Your task to perform on an android device: change timer sound Image 0: 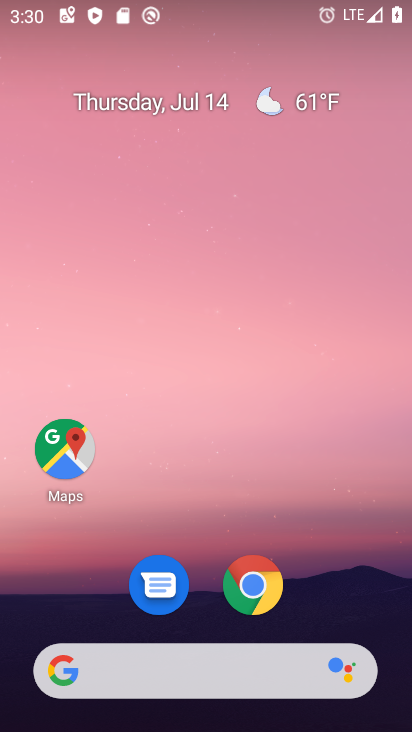
Step 0: drag from (332, 532) to (344, 76)
Your task to perform on an android device: change timer sound Image 1: 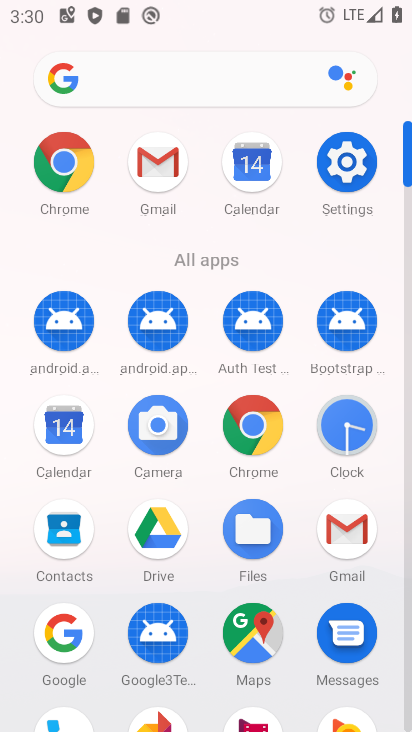
Step 1: click (345, 423)
Your task to perform on an android device: change timer sound Image 2: 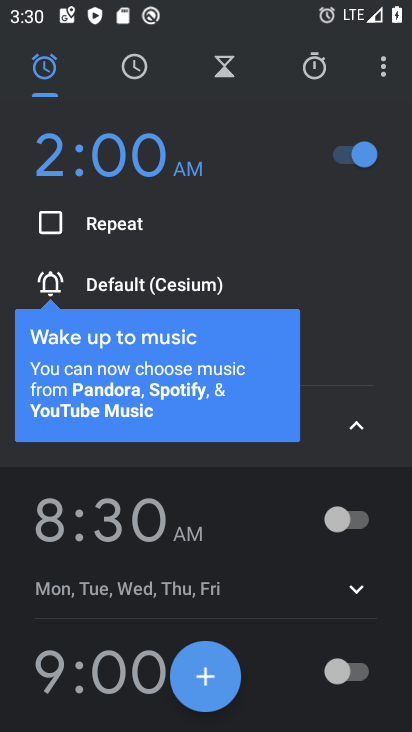
Step 2: click (387, 74)
Your task to perform on an android device: change timer sound Image 3: 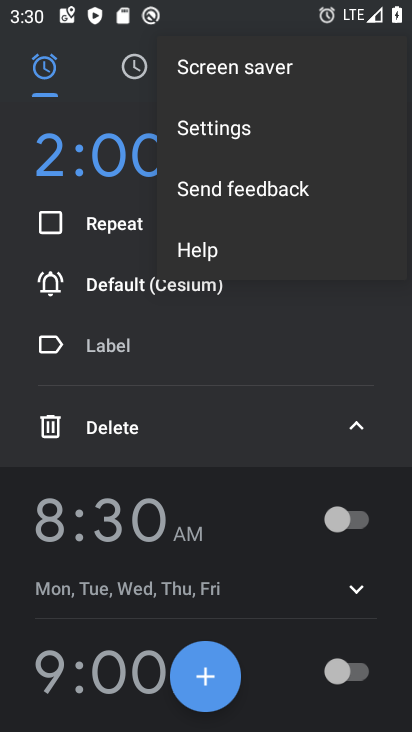
Step 3: click (261, 127)
Your task to perform on an android device: change timer sound Image 4: 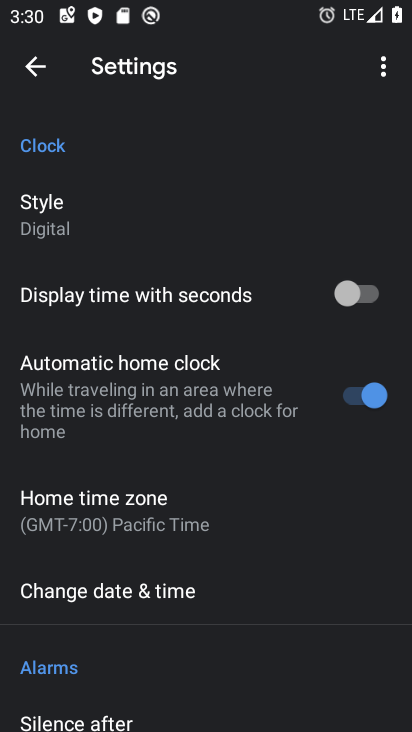
Step 4: click (211, 595)
Your task to perform on an android device: change timer sound Image 5: 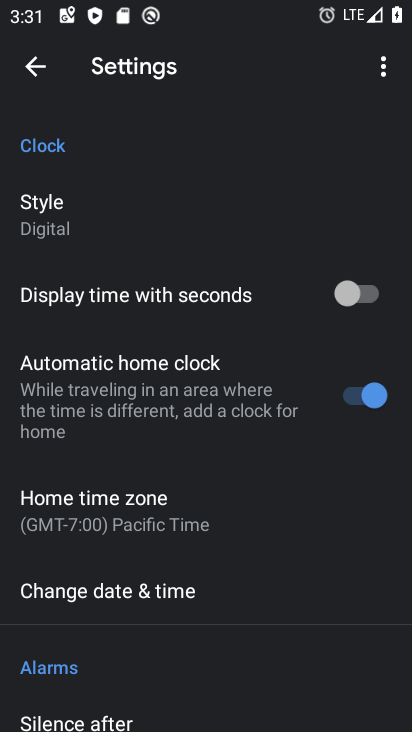
Step 5: drag from (219, 658) to (257, 191)
Your task to perform on an android device: change timer sound Image 6: 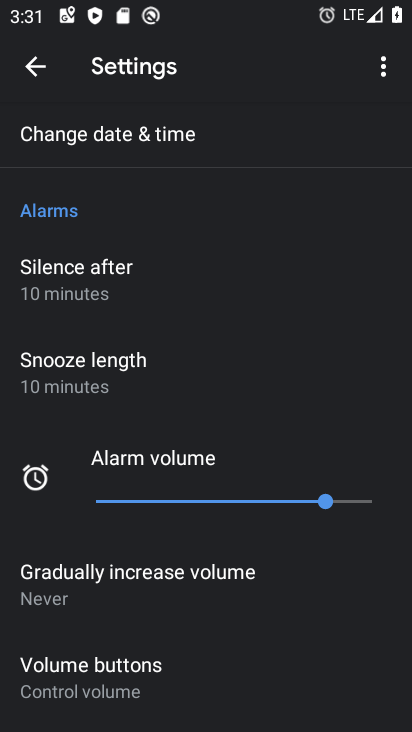
Step 6: drag from (222, 612) to (229, 242)
Your task to perform on an android device: change timer sound Image 7: 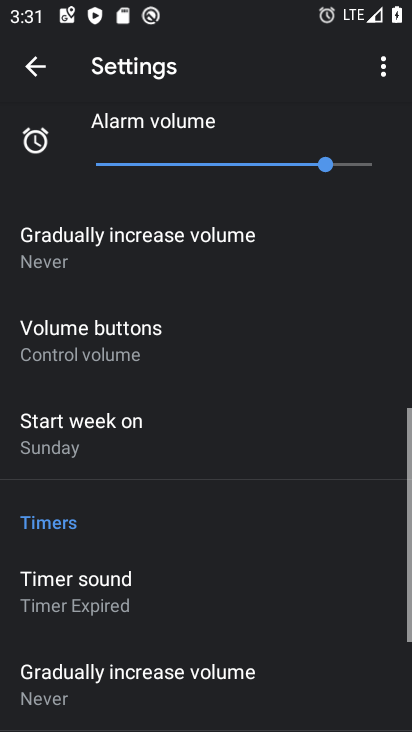
Step 7: click (115, 628)
Your task to perform on an android device: change timer sound Image 8: 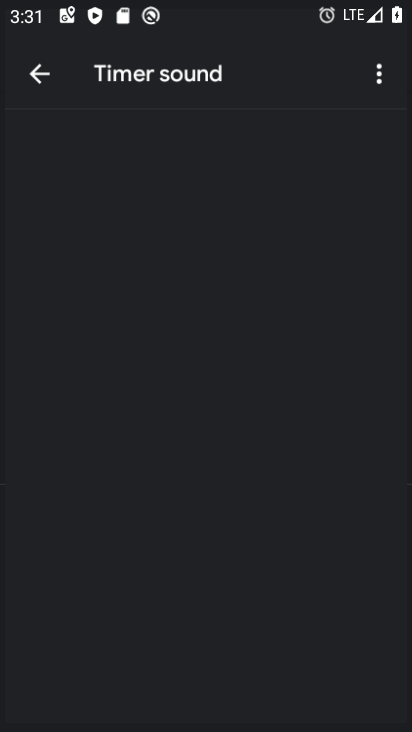
Step 8: click (117, 612)
Your task to perform on an android device: change timer sound Image 9: 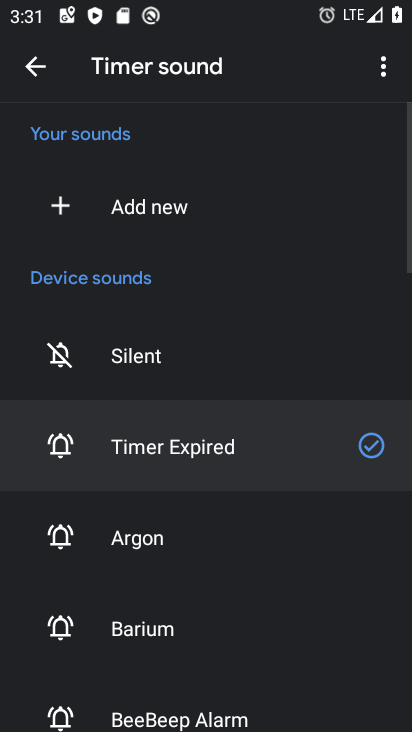
Step 9: click (143, 634)
Your task to perform on an android device: change timer sound Image 10: 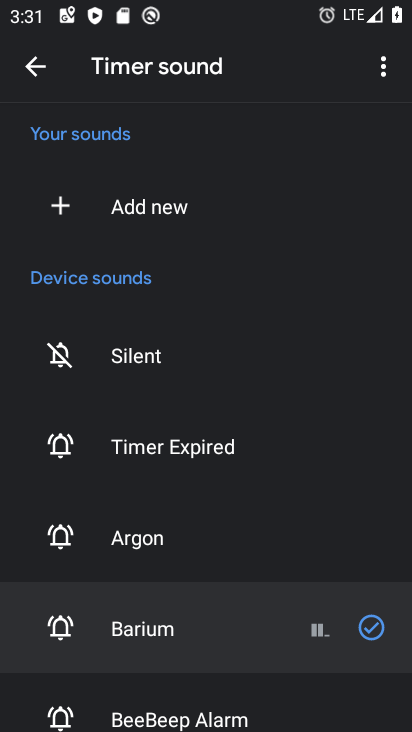
Step 10: task complete